Your task to perform on an android device: turn off airplane mode Image 0: 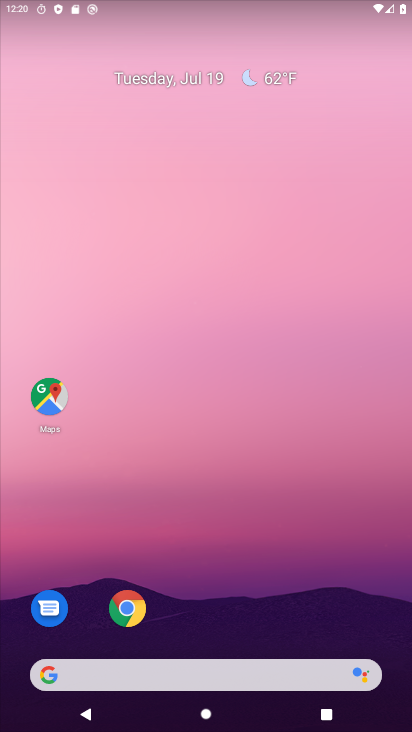
Step 0: press home button
Your task to perform on an android device: turn off airplane mode Image 1: 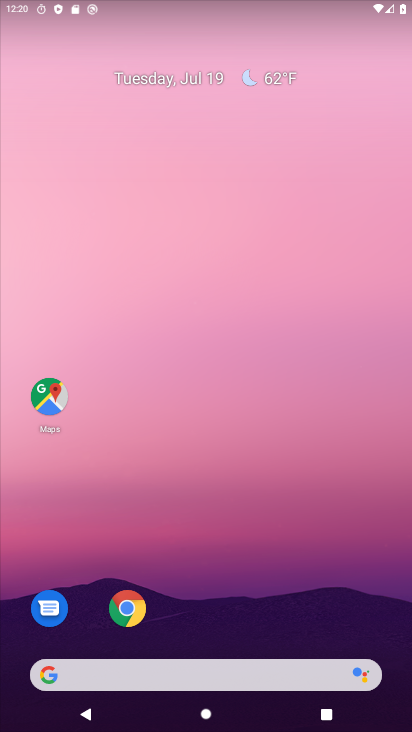
Step 1: drag from (224, 6) to (238, 530)
Your task to perform on an android device: turn off airplane mode Image 2: 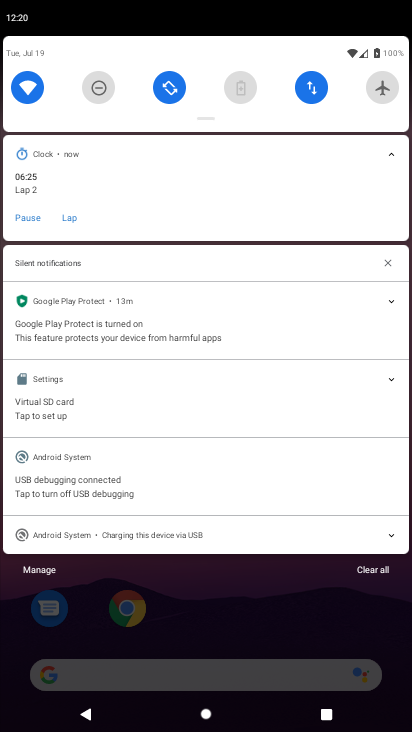
Step 2: click (366, 578)
Your task to perform on an android device: turn off airplane mode Image 3: 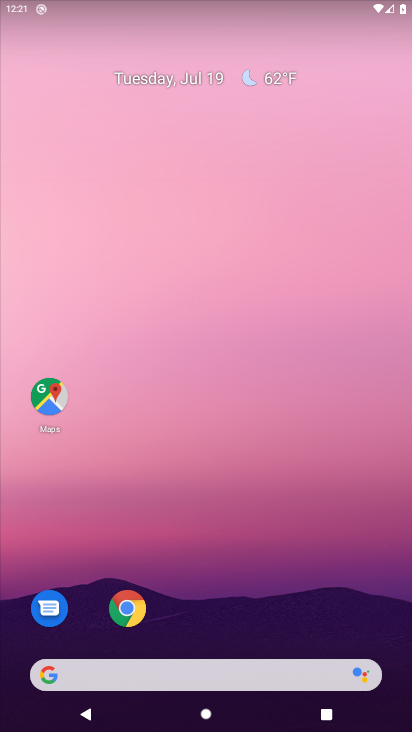
Step 3: task complete